Your task to perform on an android device: Go to Wikipedia Image 0: 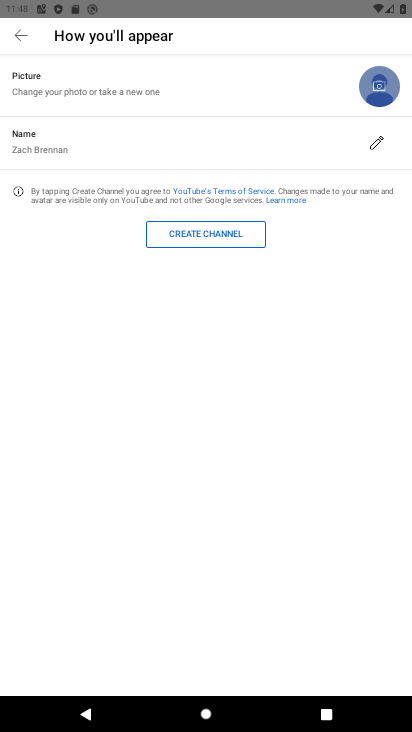
Step 0: press home button
Your task to perform on an android device: Go to Wikipedia Image 1: 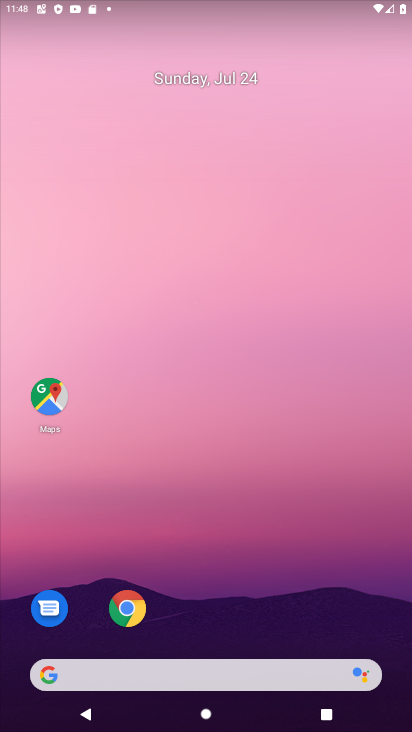
Step 1: click (122, 616)
Your task to perform on an android device: Go to Wikipedia Image 2: 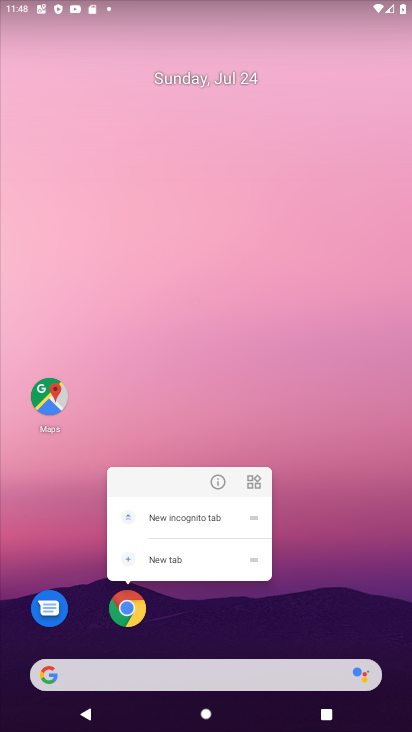
Step 2: click (128, 611)
Your task to perform on an android device: Go to Wikipedia Image 3: 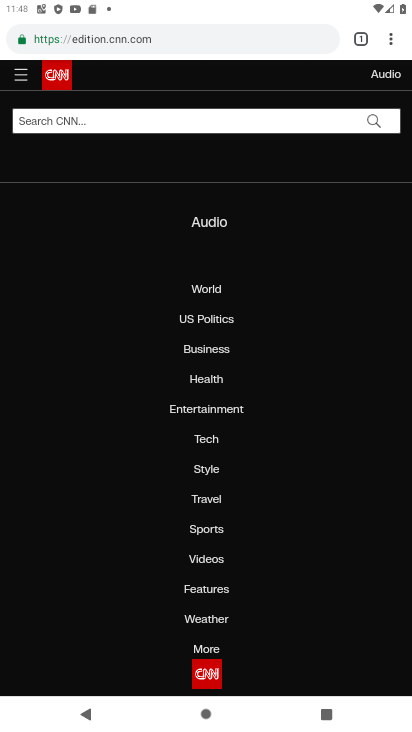
Step 3: click (120, 39)
Your task to perform on an android device: Go to Wikipedia Image 4: 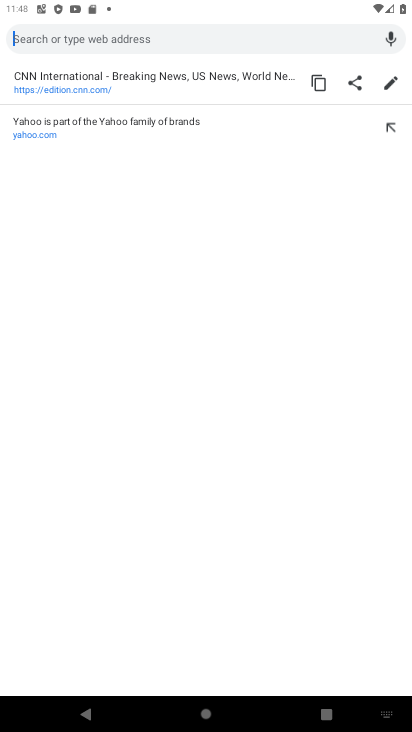
Step 4: type "wikipedia"
Your task to perform on an android device: Go to Wikipedia Image 5: 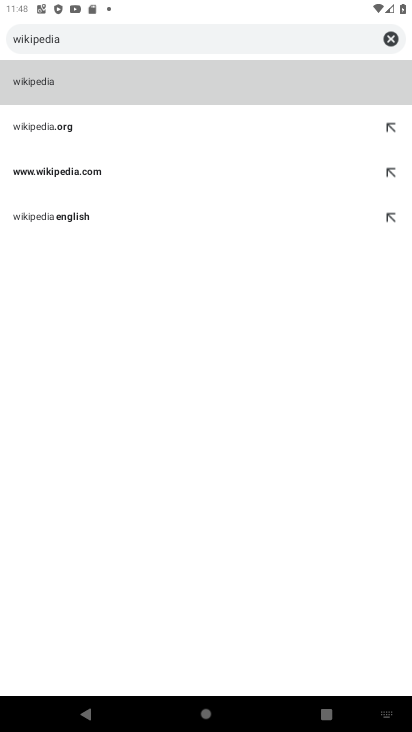
Step 5: click (25, 79)
Your task to perform on an android device: Go to Wikipedia Image 6: 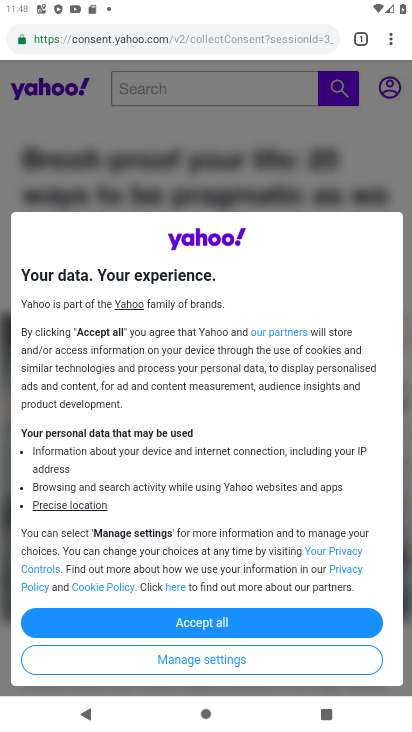
Step 6: click (191, 626)
Your task to perform on an android device: Go to Wikipedia Image 7: 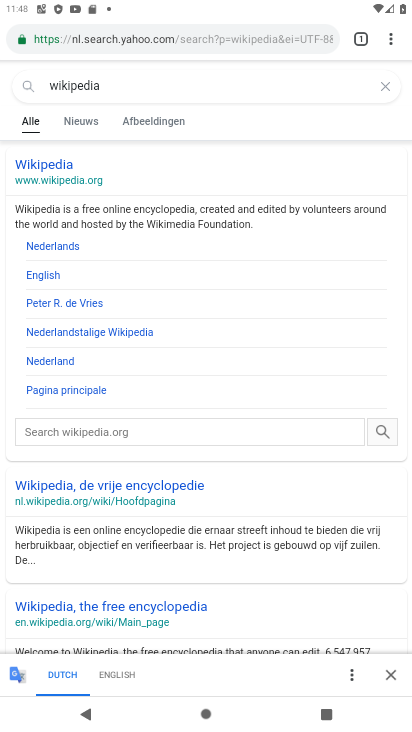
Step 7: click (35, 178)
Your task to perform on an android device: Go to Wikipedia Image 8: 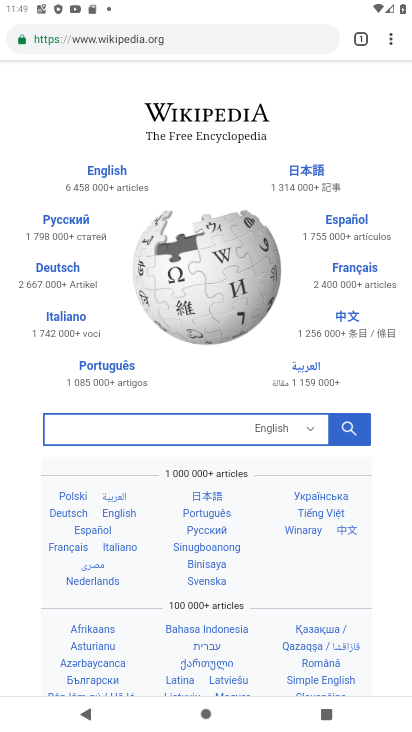
Step 8: task complete